Your task to perform on an android device: Open calendar and show me the second week of next month Image 0: 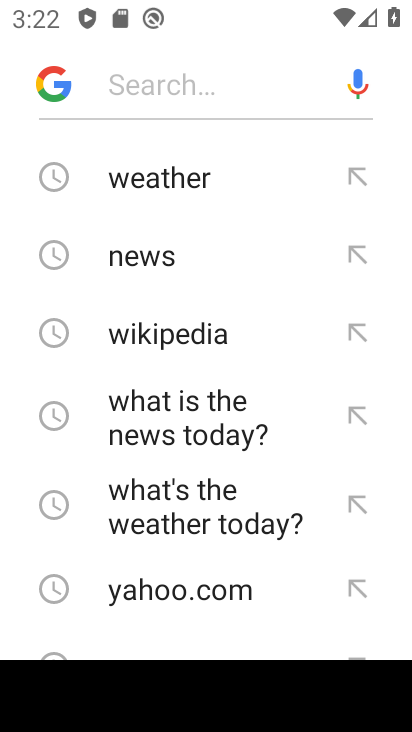
Step 0: press home button
Your task to perform on an android device: Open calendar and show me the second week of next month Image 1: 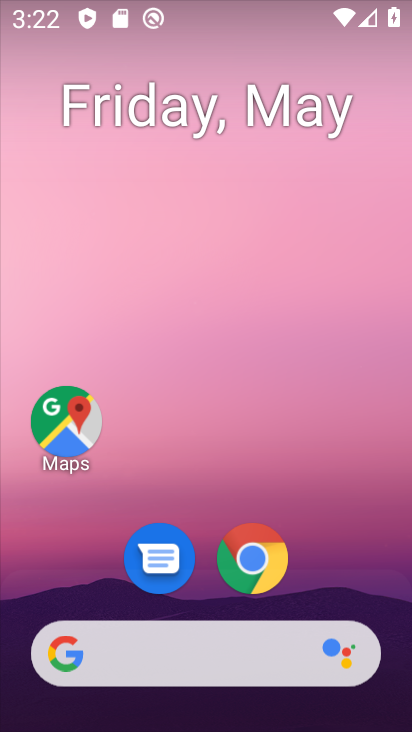
Step 1: drag from (373, 595) to (224, 71)
Your task to perform on an android device: Open calendar and show me the second week of next month Image 2: 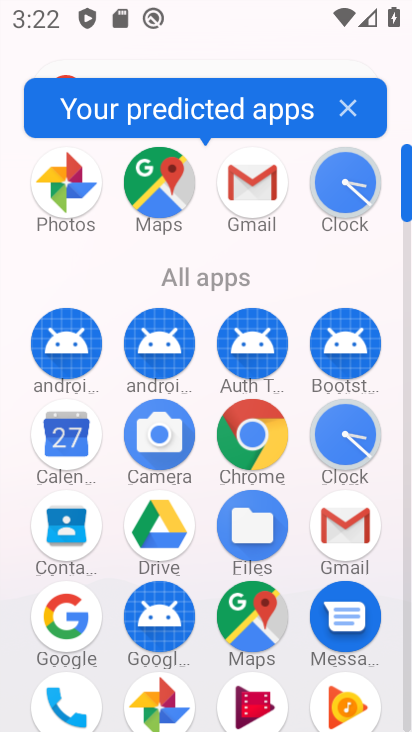
Step 2: click (52, 451)
Your task to perform on an android device: Open calendar and show me the second week of next month Image 3: 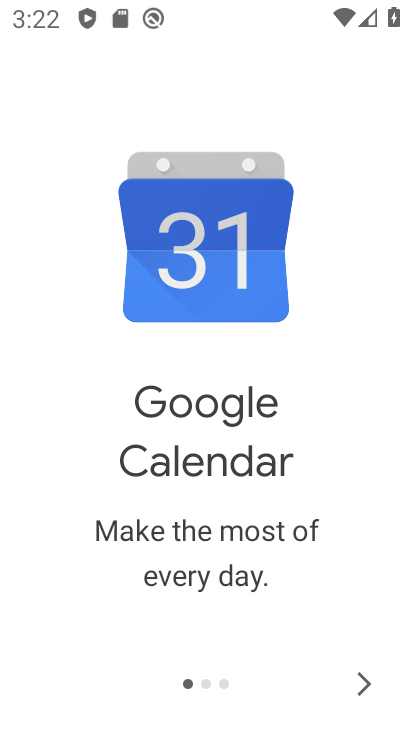
Step 3: click (366, 665)
Your task to perform on an android device: Open calendar and show me the second week of next month Image 4: 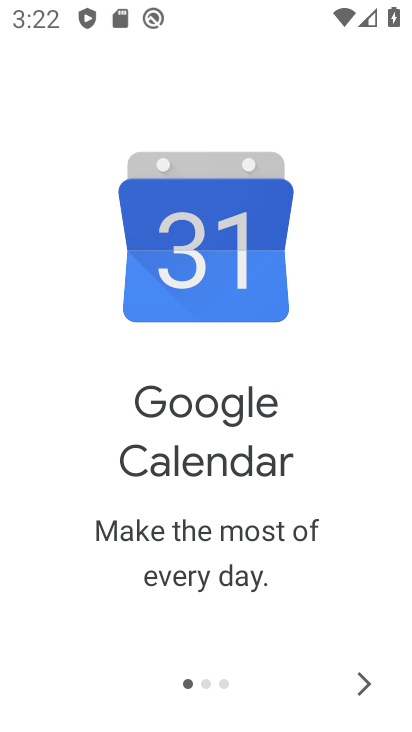
Step 4: click (366, 665)
Your task to perform on an android device: Open calendar and show me the second week of next month Image 5: 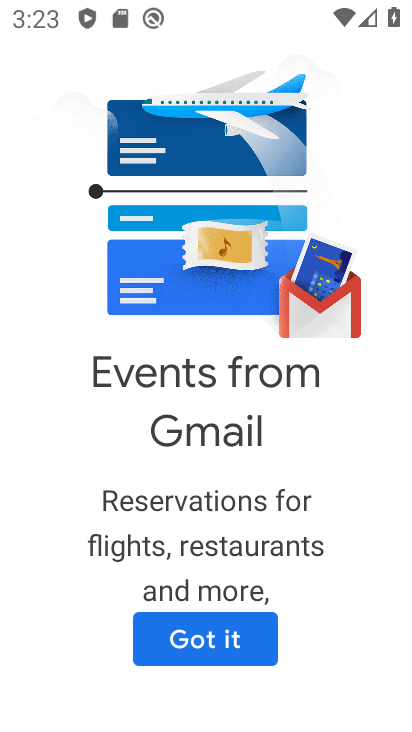
Step 5: click (220, 638)
Your task to perform on an android device: Open calendar and show me the second week of next month Image 6: 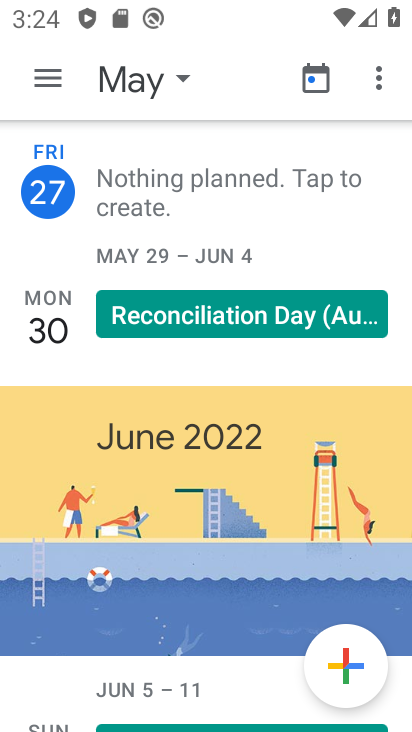
Step 6: task complete